Your task to perform on an android device: See recent photos Image 0: 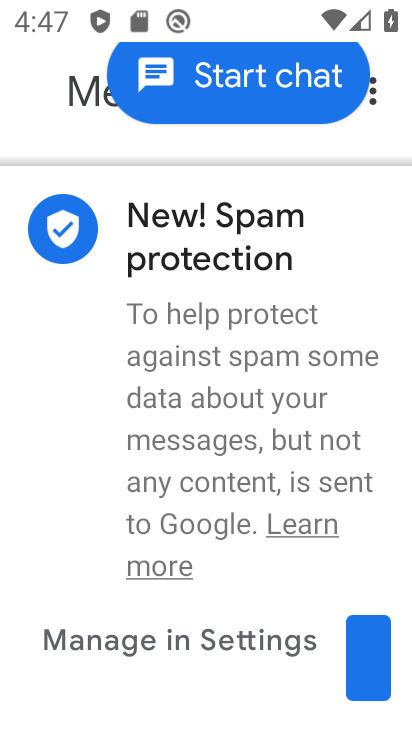
Step 0: press home button
Your task to perform on an android device: See recent photos Image 1: 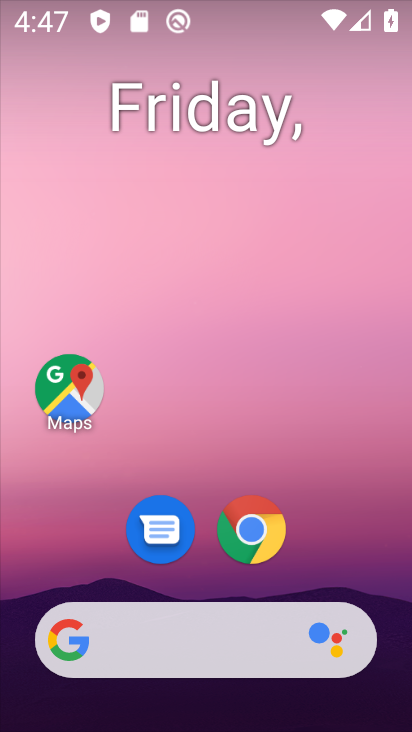
Step 1: drag from (339, 546) to (249, 35)
Your task to perform on an android device: See recent photos Image 2: 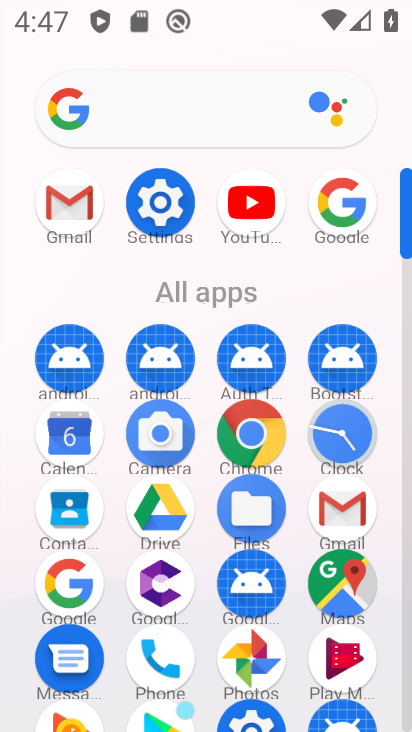
Step 2: click (249, 647)
Your task to perform on an android device: See recent photos Image 3: 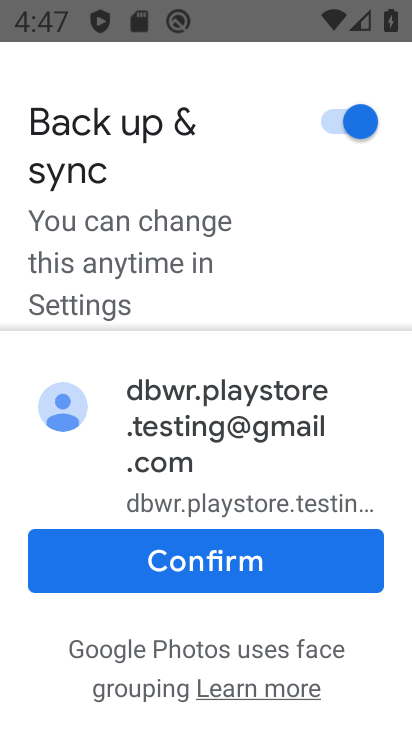
Step 3: click (237, 12)
Your task to perform on an android device: See recent photos Image 4: 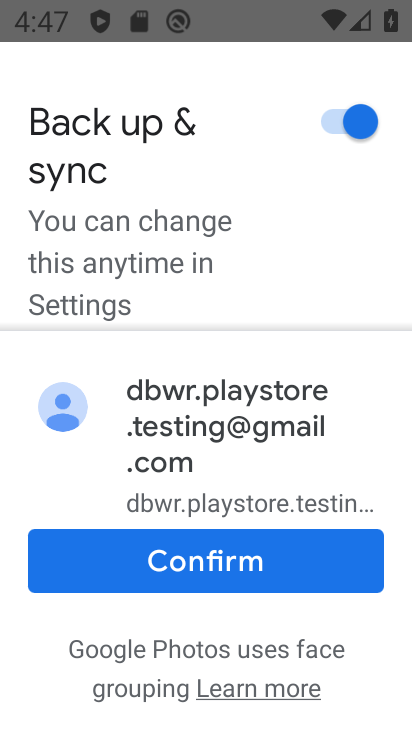
Step 4: click (232, 566)
Your task to perform on an android device: See recent photos Image 5: 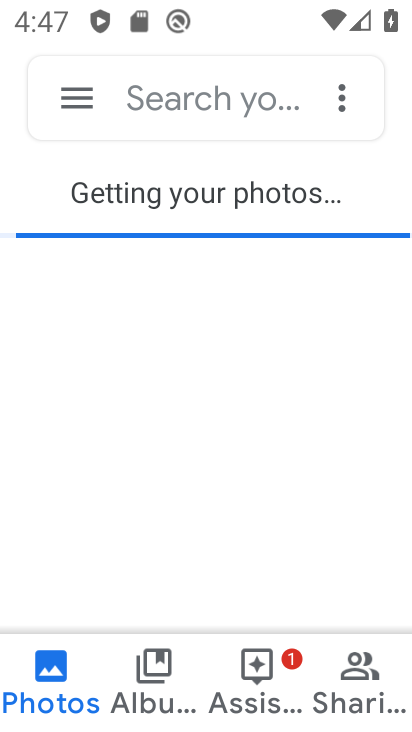
Step 5: click (171, 93)
Your task to perform on an android device: See recent photos Image 6: 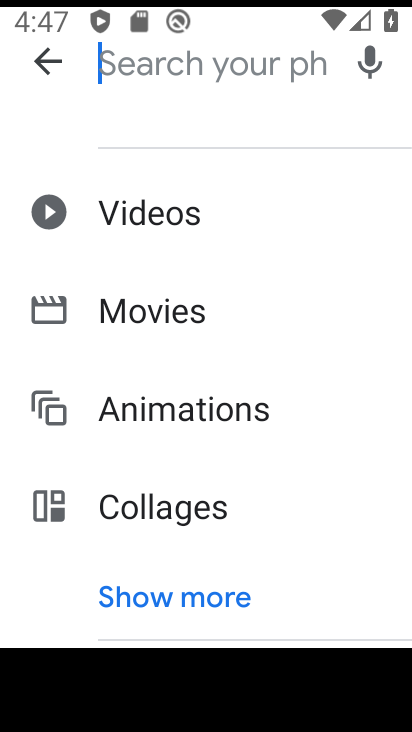
Step 6: type "recent"
Your task to perform on an android device: See recent photos Image 7: 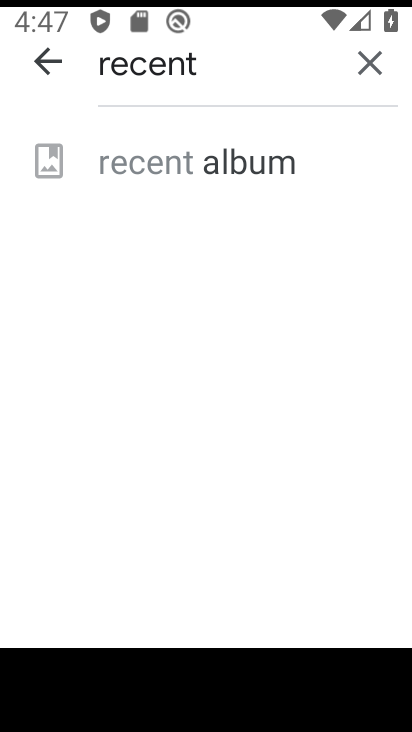
Step 7: click (229, 167)
Your task to perform on an android device: See recent photos Image 8: 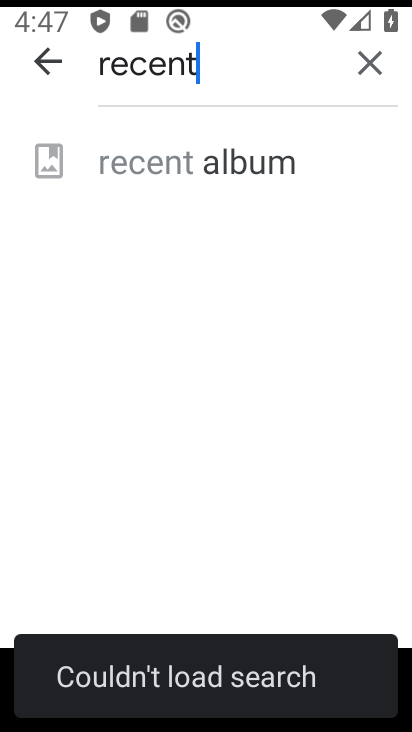
Step 8: click (216, 61)
Your task to perform on an android device: See recent photos Image 9: 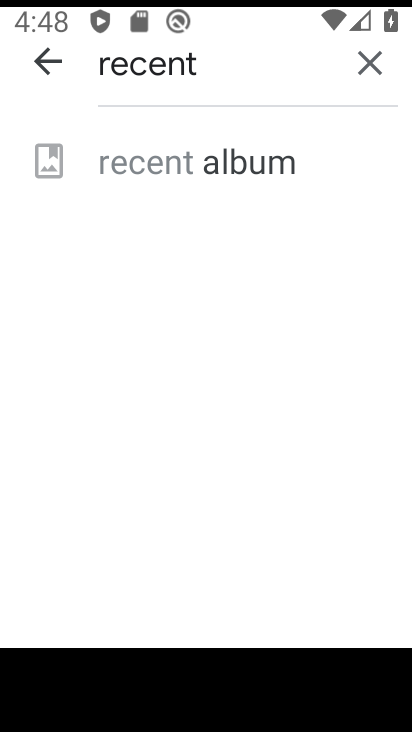
Step 9: type " photos"
Your task to perform on an android device: See recent photos Image 10: 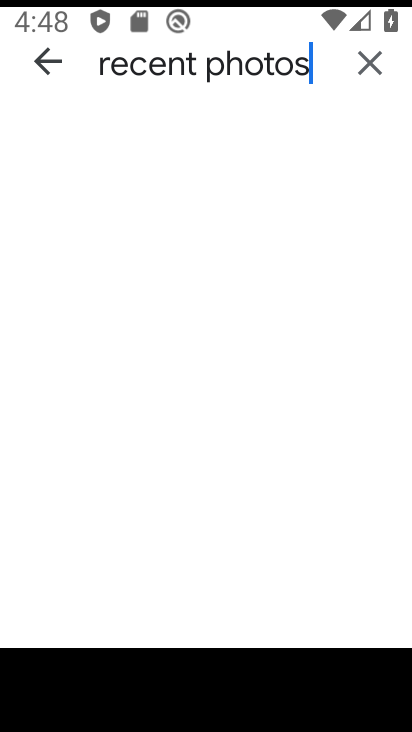
Step 10: click (363, 61)
Your task to perform on an android device: See recent photos Image 11: 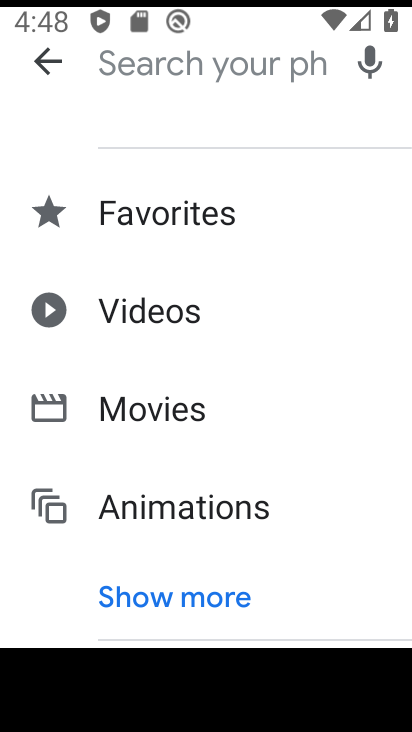
Step 11: click (43, 59)
Your task to perform on an android device: See recent photos Image 12: 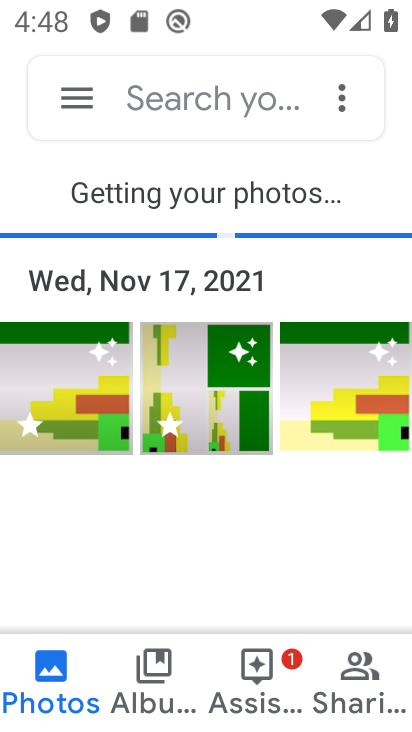
Step 12: click (48, 667)
Your task to perform on an android device: See recent photos Image 13: 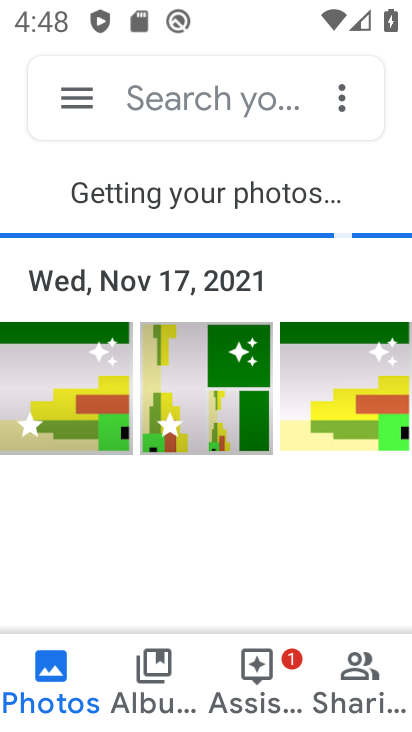
Step 13: task complete